Your task to perform on an android device: turn off notifications in google photos Image 0: 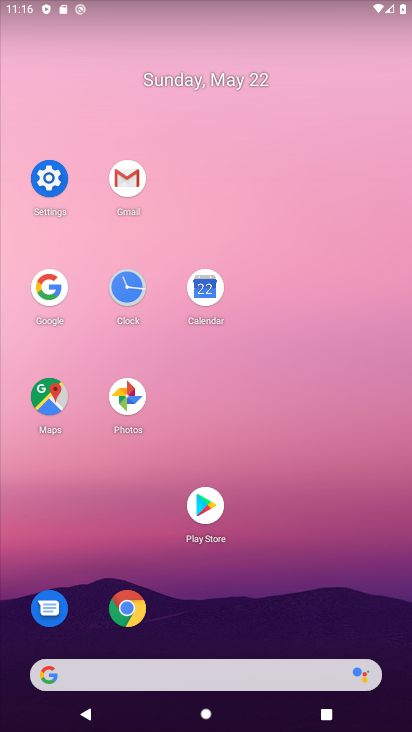
Step 0: click (132, 401)
Your task to perform on an android device: turn off notifications in google photos Image 1: 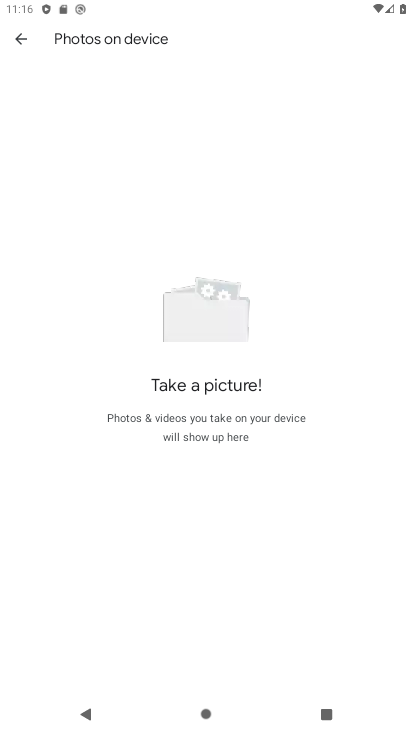
Step 1: click (31, 38)
Your task to perform on an android device: turn off notifications in google photos Image 2: 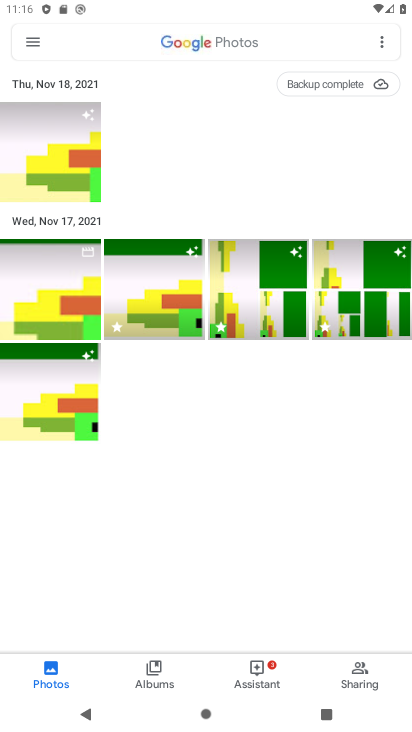
Step 2: click (31, 38)
Your task to perform on an android device: turn off notifications in google photos Image 3: 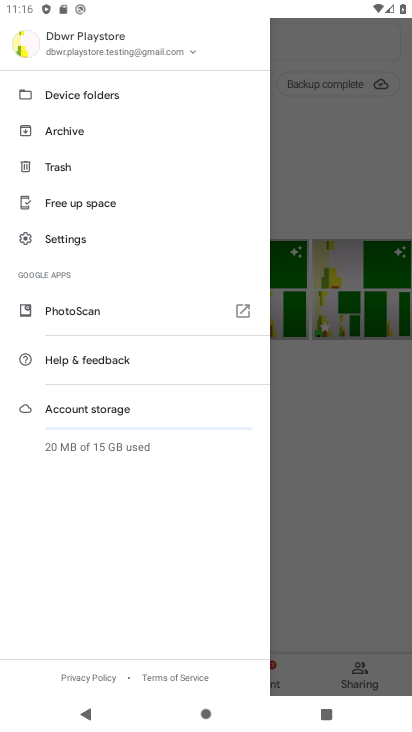
Step 3: click (106, 237)
Your task to perform on an android device: turn off notifications in google photos Image 4: 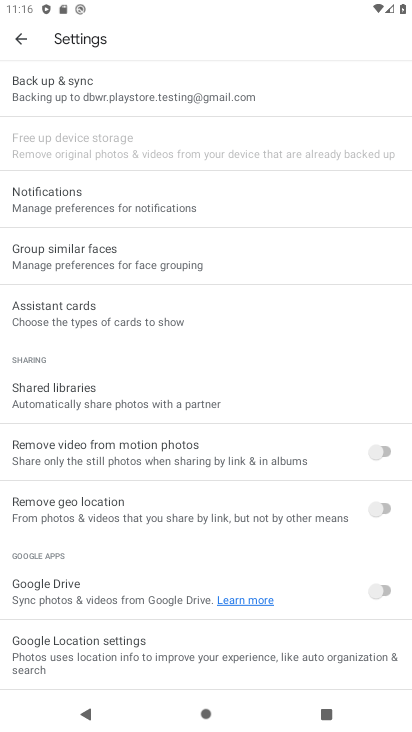
Step 4: click (172, 212)
Your task to perform on an android device: turn off notifications in google photos Image 5: 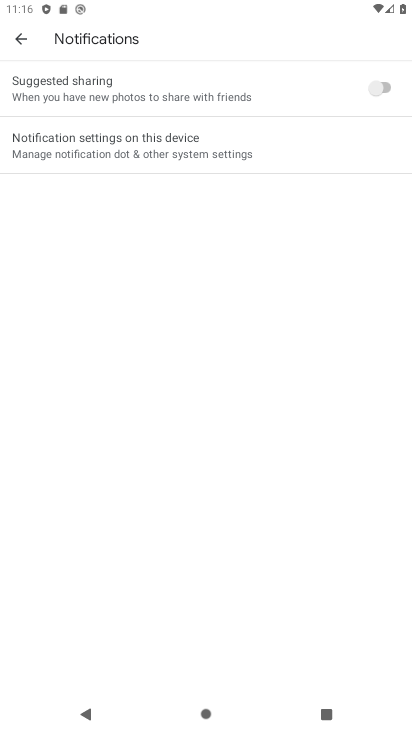
Step 5: click (182, 138)
Your task to perform on an android device: turn off notifications in google photos Image 6: 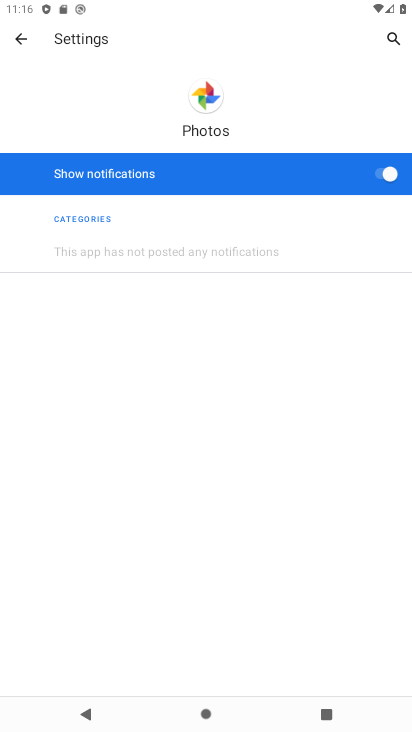
Step 6: click (382, 170)
Your task to perform on an android device: turn off notifications in google photos Image 7: 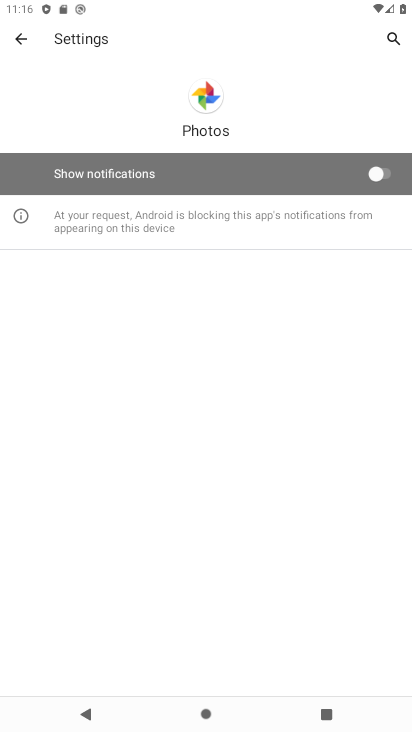
Step 7: task complete